Your task to perform on an android device: Check the weather Image 0: 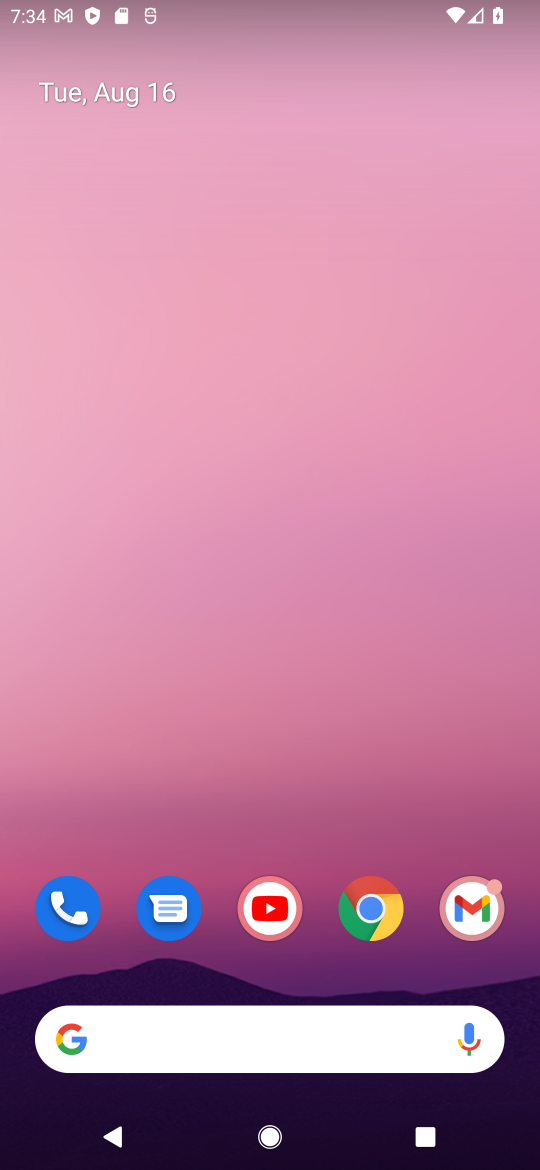
Step 0: click (156, 1046)
Your task to perform on an android device: Check the weather Image 1: 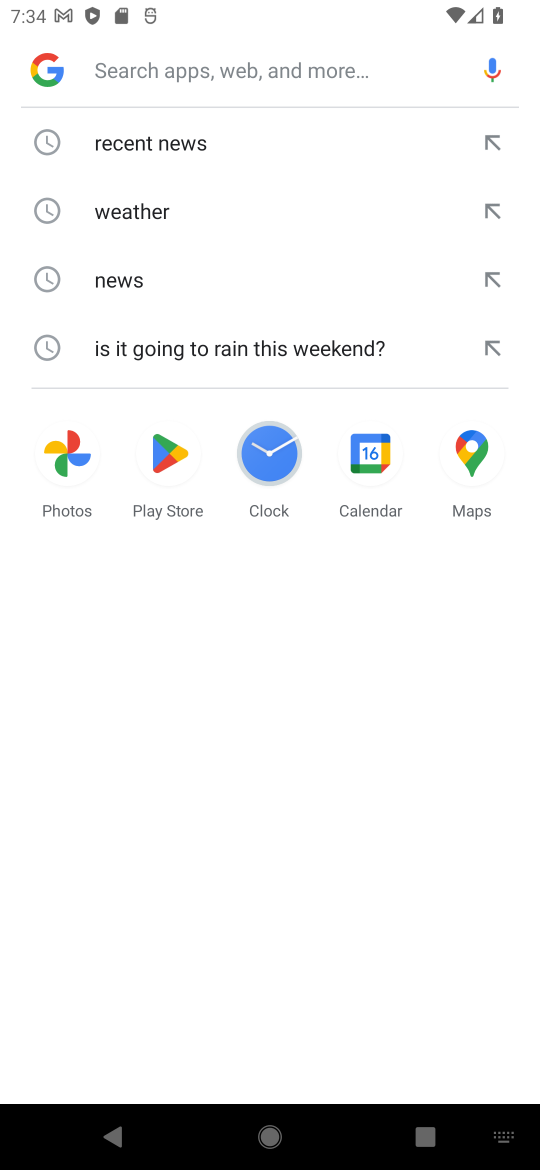
Step 1: click (132, 220)
Your task to perform on an android device: Check the weather Image 2: 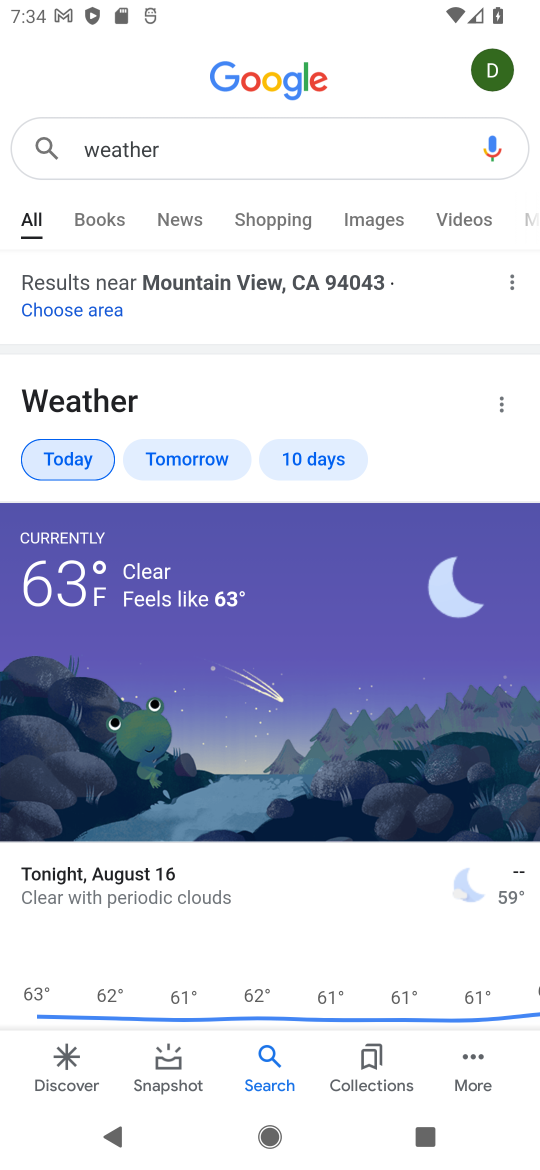
Step 2: click (420, 220)
Your task to perform on an android device: Check the weather Image 3: 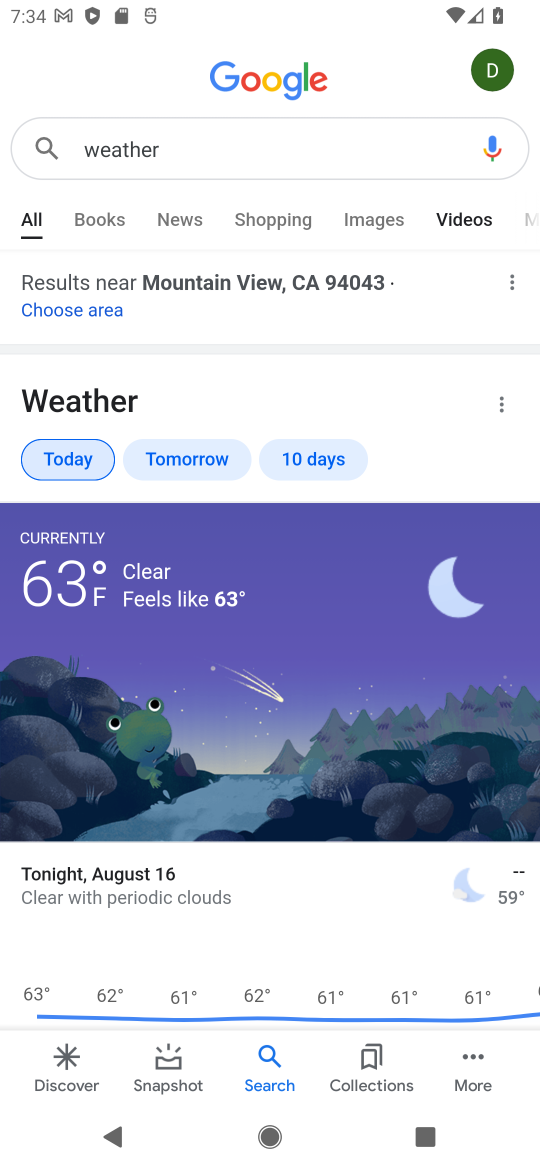
Step 3: task complete